Your task to perform on an android device: change text size in settings app Image 0: 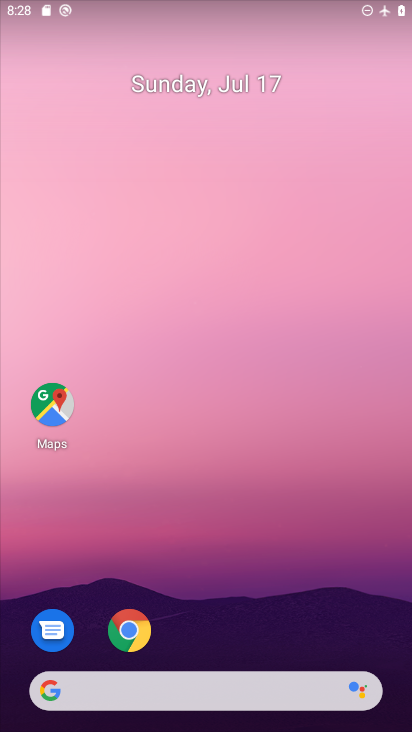
Step 0: drag from (222, 596) to (237, 109)
Your task to perform on an android device: change text size in settings app Image 1: 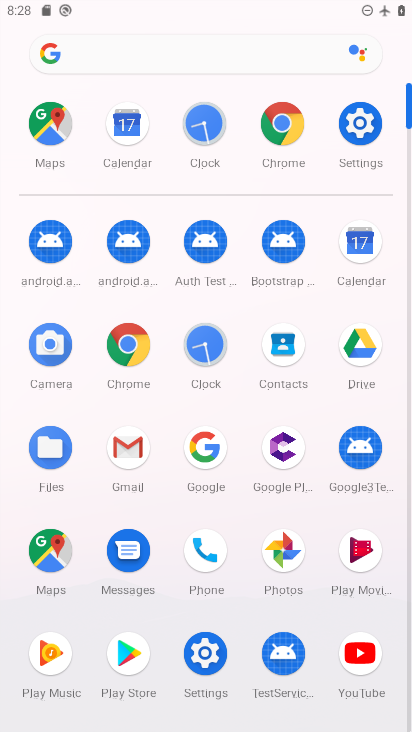
Step 1: click (365, 120)
Your task to perform on an android device: change text size in settings app Image 2: 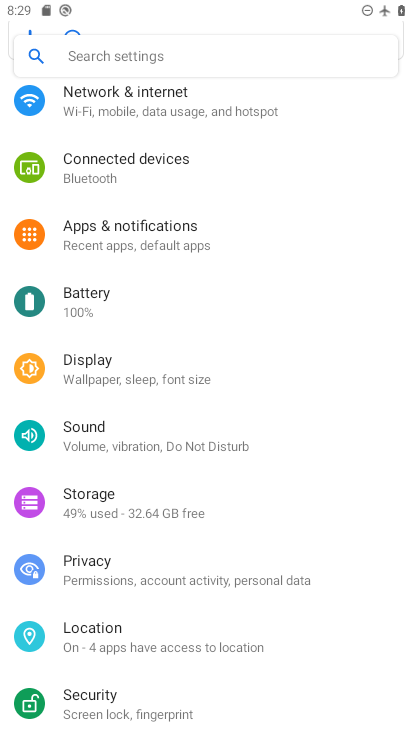
Step 2: drag from (195, 613) to (252, 187)
Your task to perform on an android device: change text size in settings app Image 3: 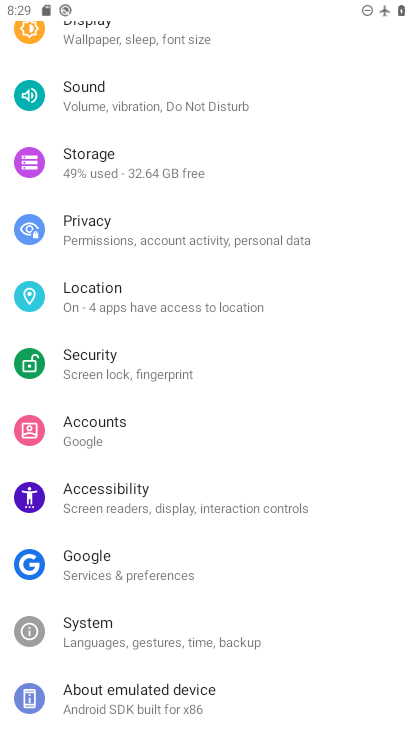
Step 3: click (141, 640)
Your task to perform on an android device: change text size in settings app Image 4: 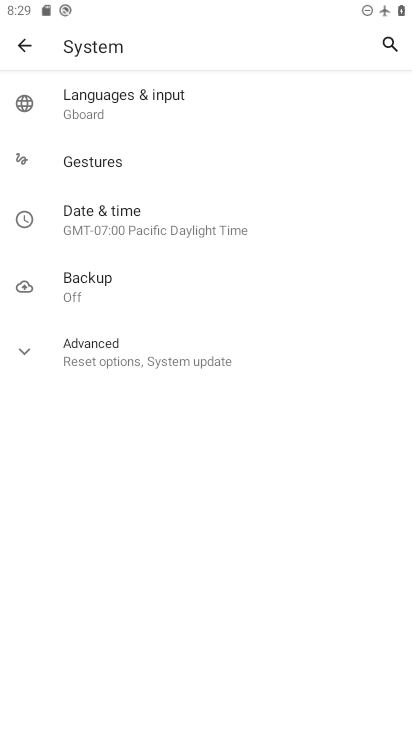
Step 4: click (27, 47)
Your task to perform on an android device: change text size in settings app Image 5: 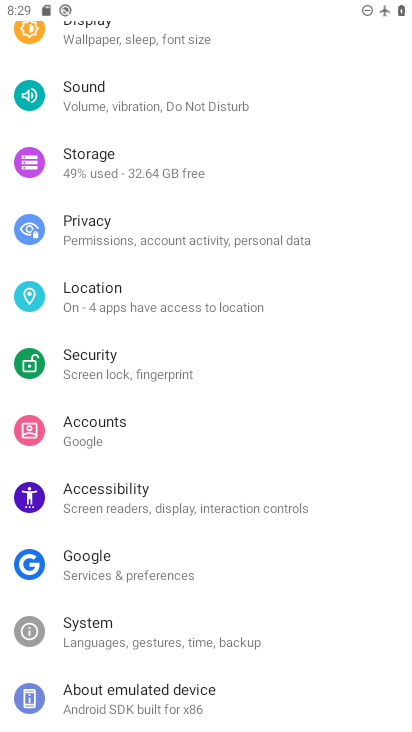
Step 5: click (114, 503)
Your task to perform on an android device: change text size in settings app Image 6: 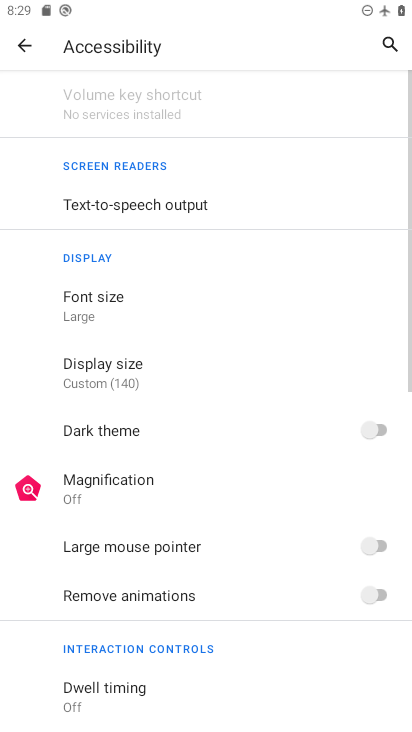
Step 6: click (125, 295)
Your task to perform on an android device: change text size in settings app Image 7: 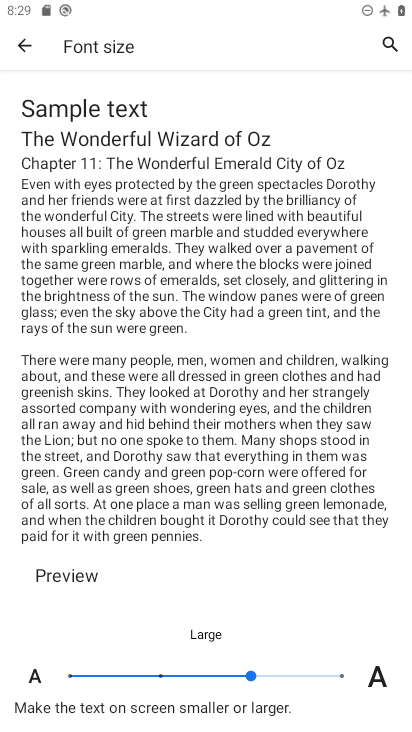
Step 7: click (331, 667)
Your task to perform on an android device: change text size in settings app Image 8: 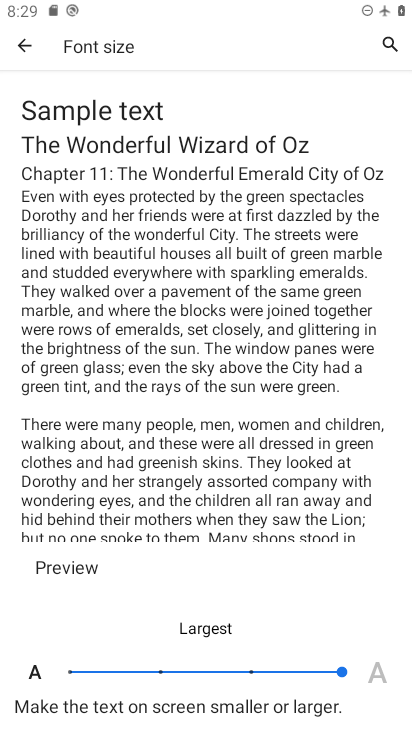
Step 8: task complete